Your task to perform on an android device: set the timer Image 0: 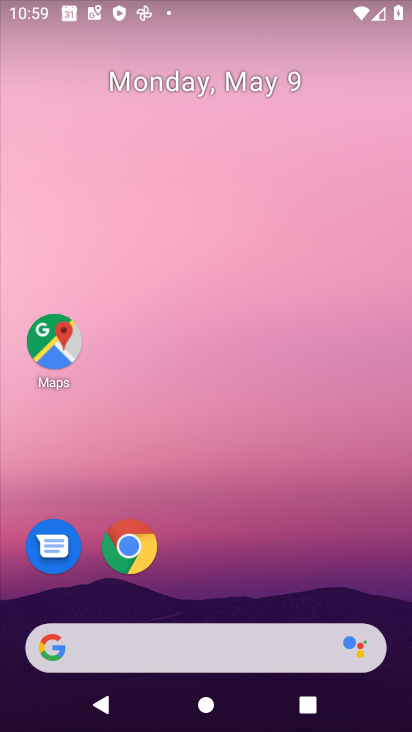
Step 0: drag from (262, 703) to (259, 0)
Your task to perform on an android device: set the timer Image 1: 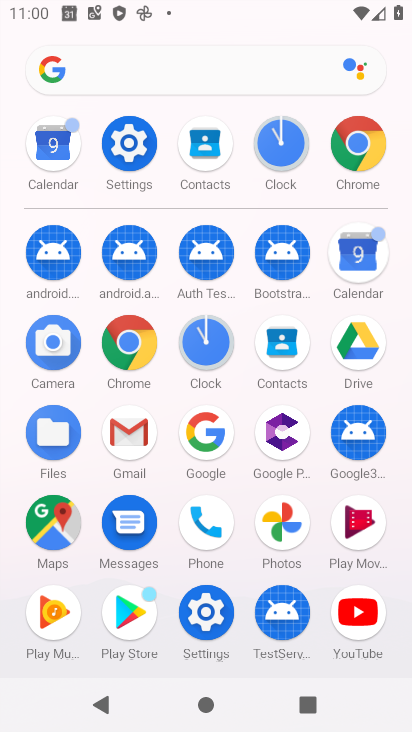
Step 1: click (283, 158)
Your task to perform on an android device: set the timer Image 2: 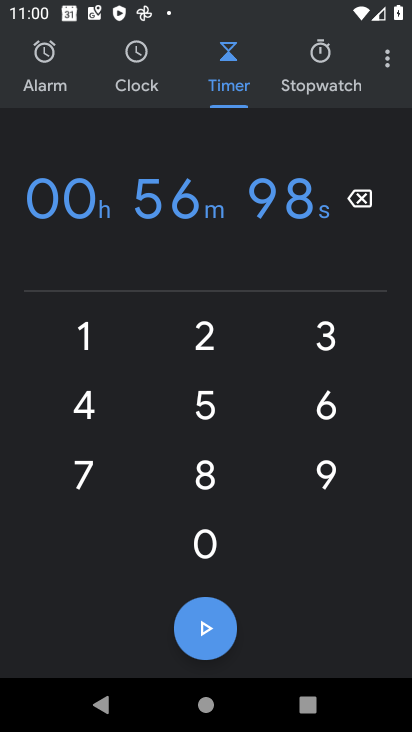
Step 2: click (201, 337)
Your task to perform on an android device: set the timer Image 3: 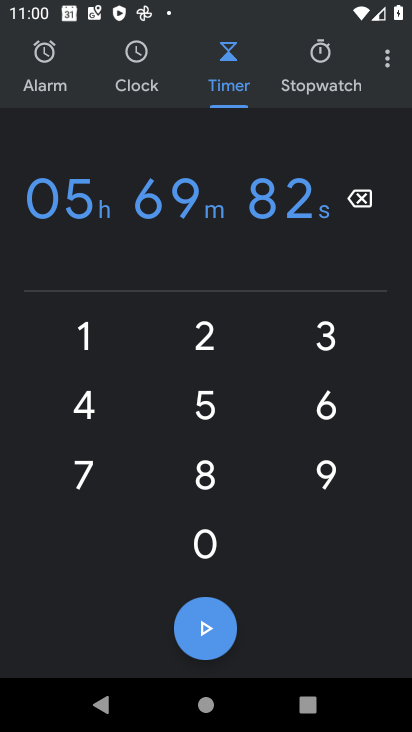
Step 3: click (201, 418)
Your task to perform on an android device: set the timer Image 4: 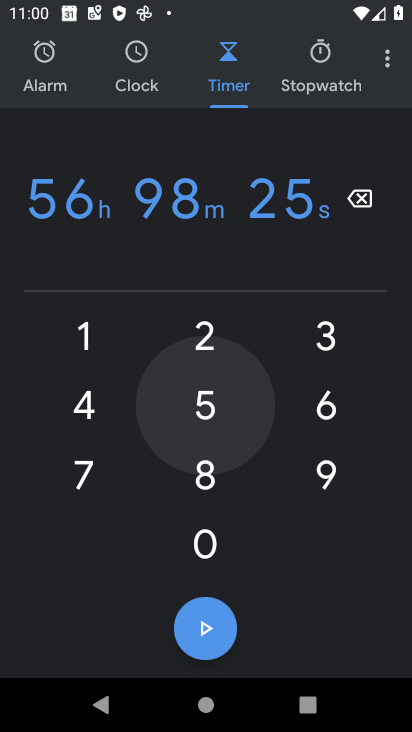
Step 4: click (220, 480)
Your task to perform on an android device: set the timer Image 5: 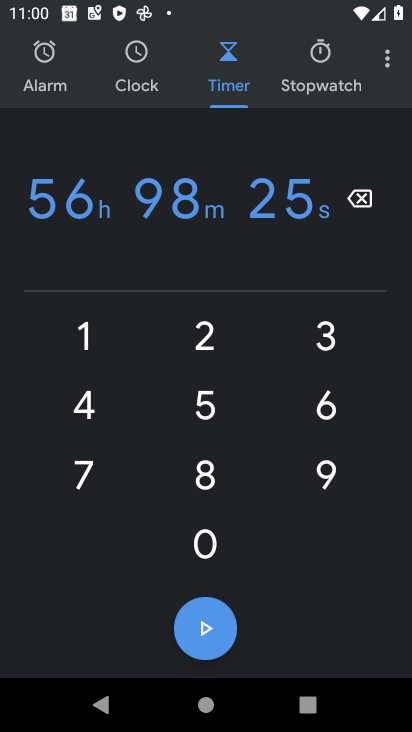
Step 5: task complete